Your task to perform on an android device: turn on translation in the chrome app Image 0: 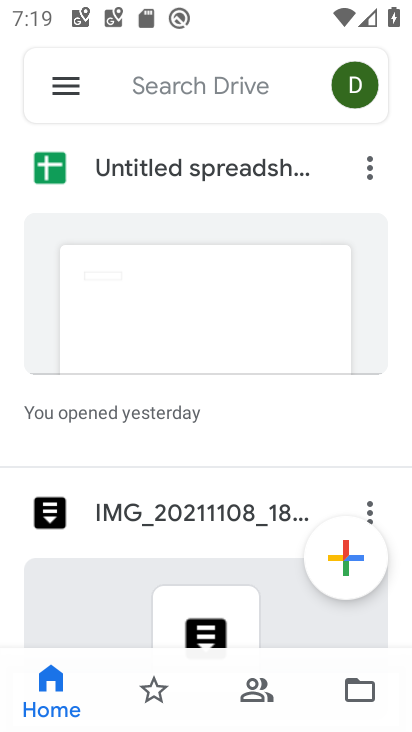
Step 0: press home button
Your task to perform on an android device: turn on translation in the chrome app Image 1: 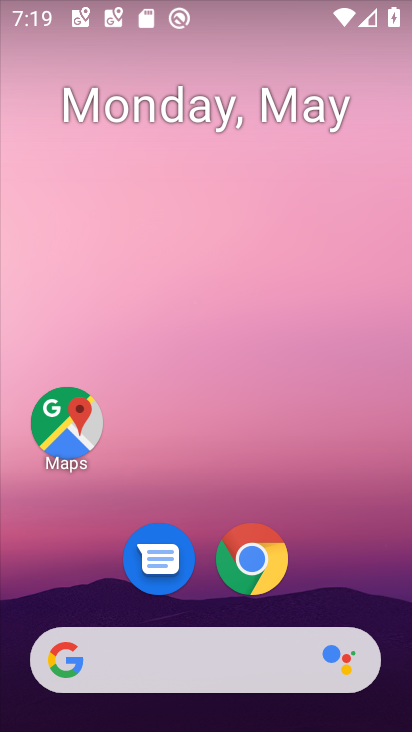
Step 1: drag from (397, 655) to (313, 67)
Your task to perform on an android device: turn on translation in the chrome app Image 2: 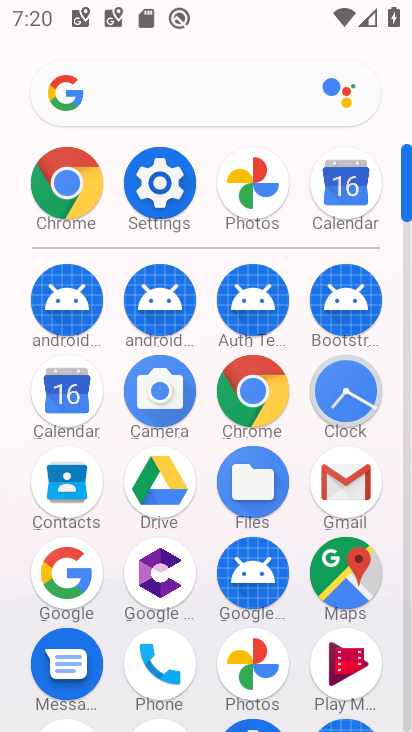
Step 2: click (255, 389)
Your task to perform on an android device: turn on translation in the chrome app Image 3: 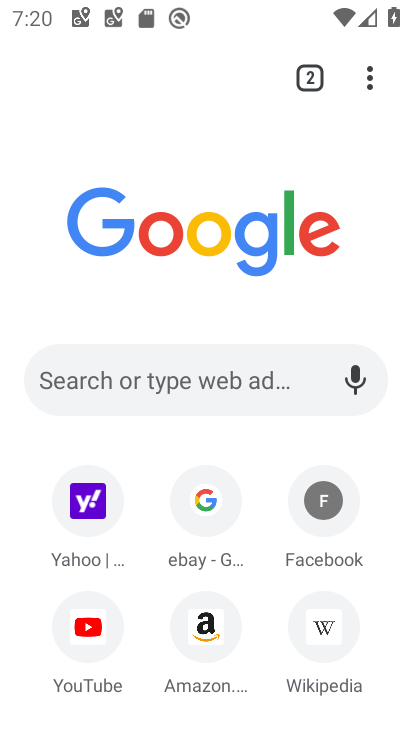
Step 3: click (367, 68)
Your task to perform on an android device: turn on translation in the chrome app Image 4: 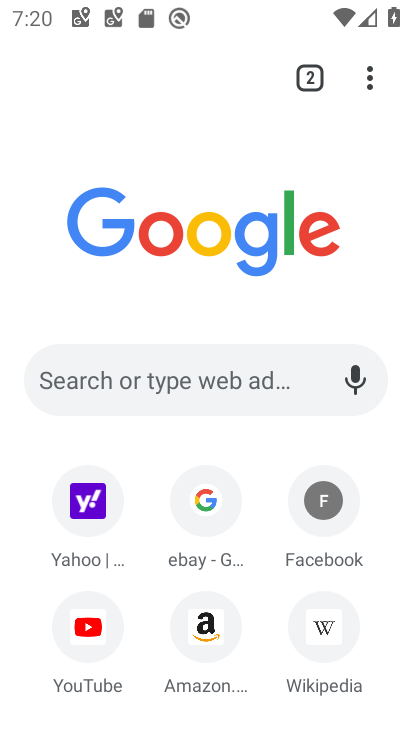
Step 4: click (367, 68)
Your task to perform on an android device: turn on translation in the chrome app Image 5: 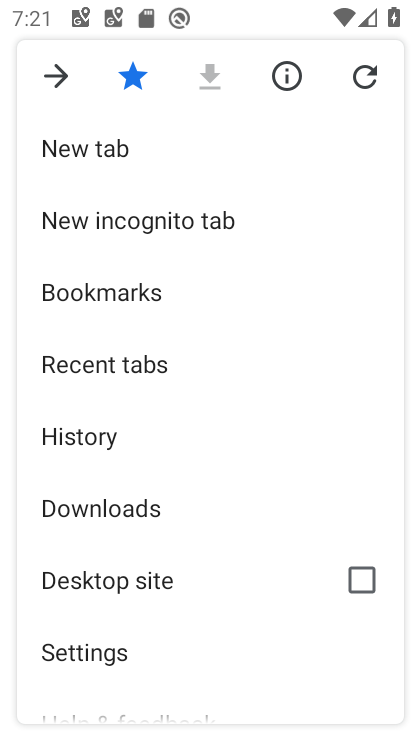
Step 5: click (98, 659)
Your task to perform on an android device: turn on translation in the chrome app Image 6: 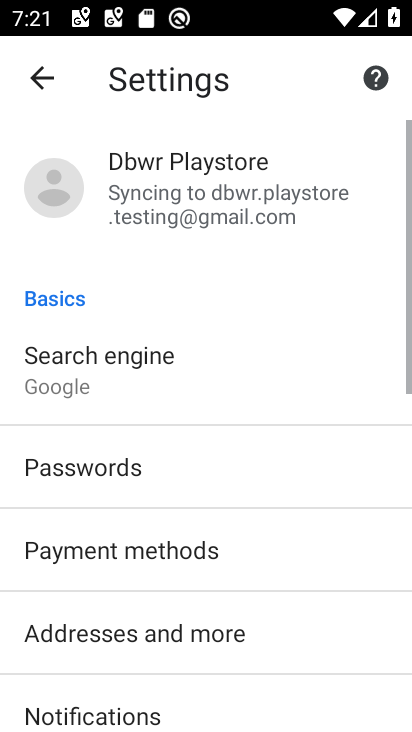
Step 6: drag from (119, 629) to (159, 156)
Your task to perform on an android device: turn on translation in the chrome app Image 7: 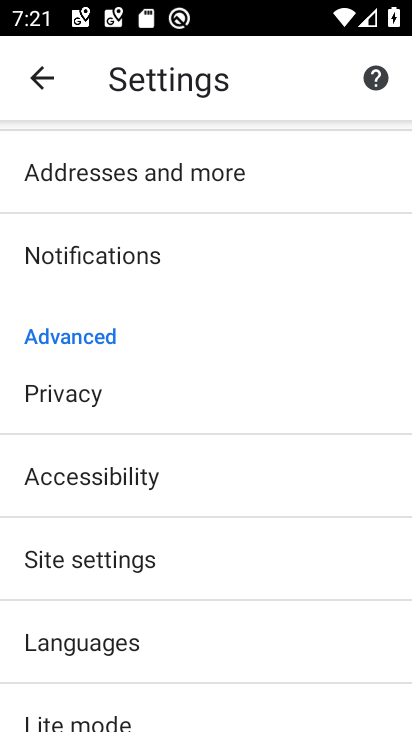
Step 7: click (104, 648)
Your task to perform on an android device: turn on translation in the chrome app Image 8: 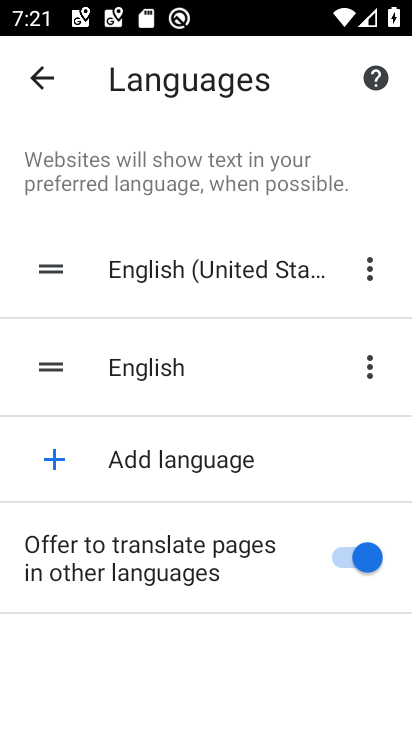
Step 8: task complete